Your task to perform on an android device: Open accessibility settings Image 0: 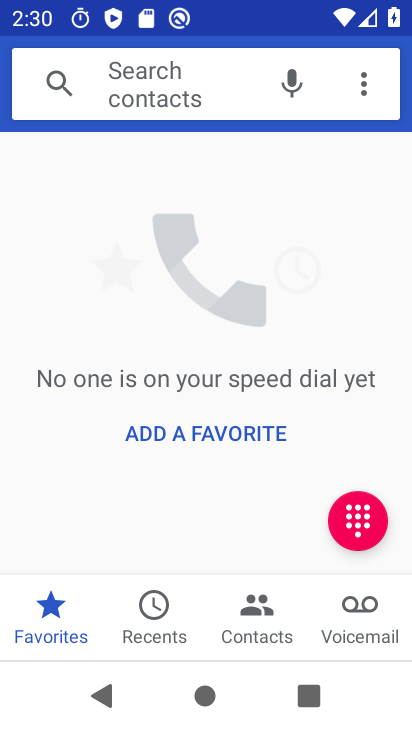
Step 0: press home button
Your task to perform on an android device: Open accessibility settings Image 1: 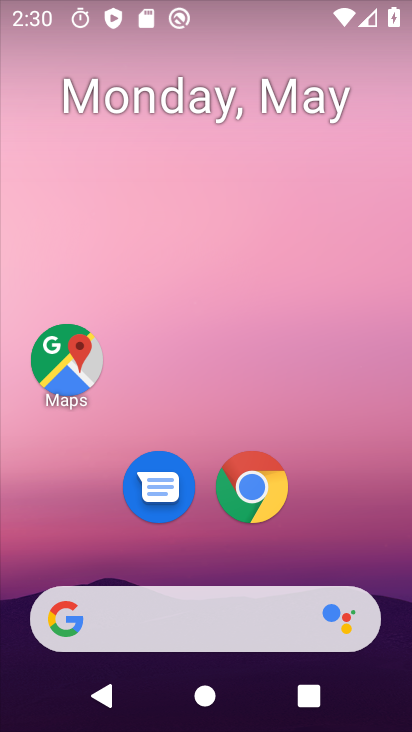
Step 1: drag from (210, 483) to (274, 0)
Your task to perform on an android device: Open accessibility settings Image 2: 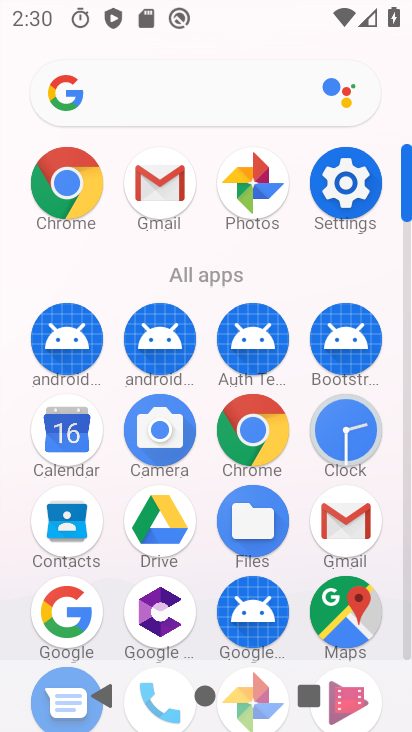
Step 2: click (343, 244)
Your task to perform on an android device: Open accessibility settings Image 3: 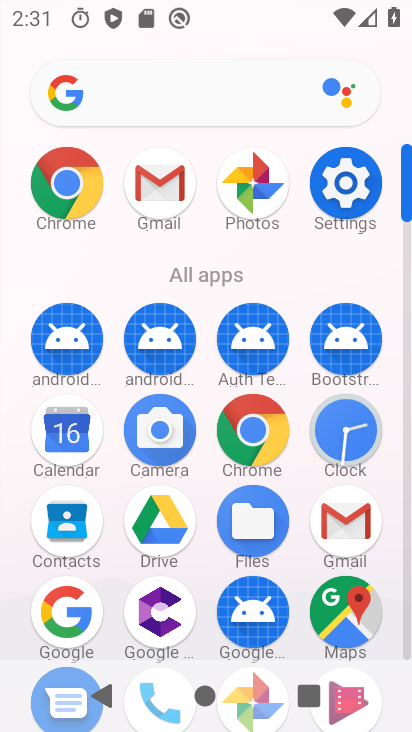
Step 3: click (356, 189)
Your task to perform on an android device: Open accessibility settings Image 4: 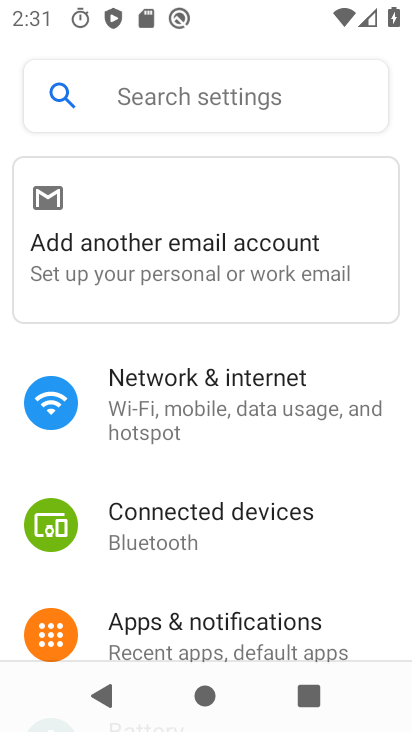
Step 4: drag from (212, 574) to (282, 173)
Your task to perform on an android device: Open accessibility settings Image 5: 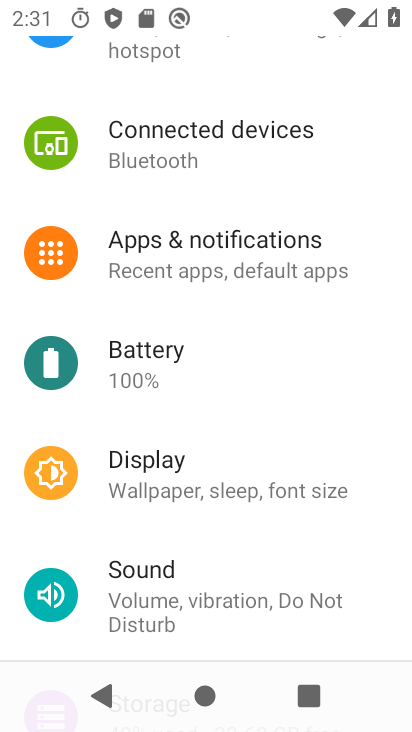
Step 5: drag from (195, 590) to (334, 35)
Your task to perform on an android device: Open accessibility settings Image 6: 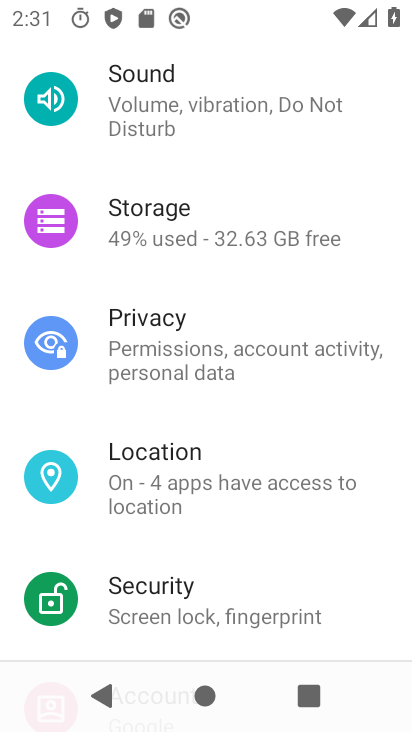
Step 6: drag from (169, 600) to (284, 49)
Your task to perform on an android device: Open accessibility settings Image 7: 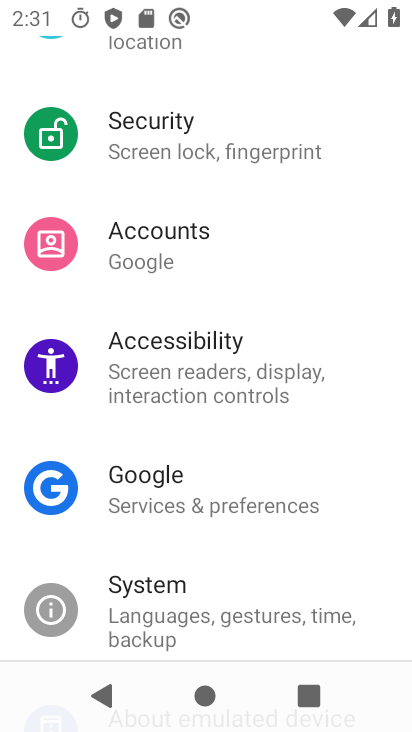
Step 7: drag from (182, 582) to (280, 118)
Your task to perform on an android device: Open accessibility settings Image 8: 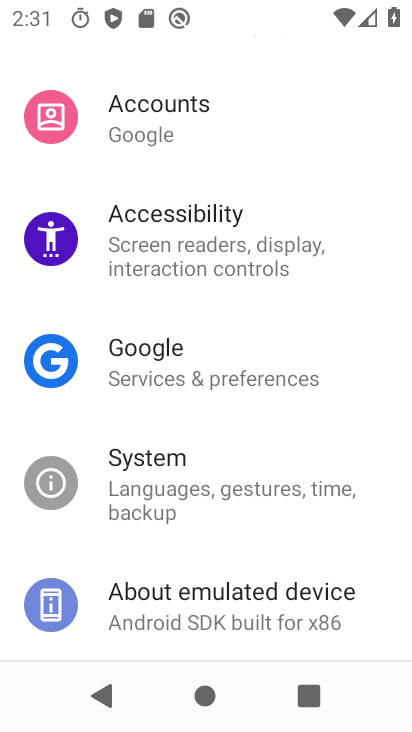
Step 8: click (205, 272)
Your task to perform on an android device: Open accessibility settings Image 9: 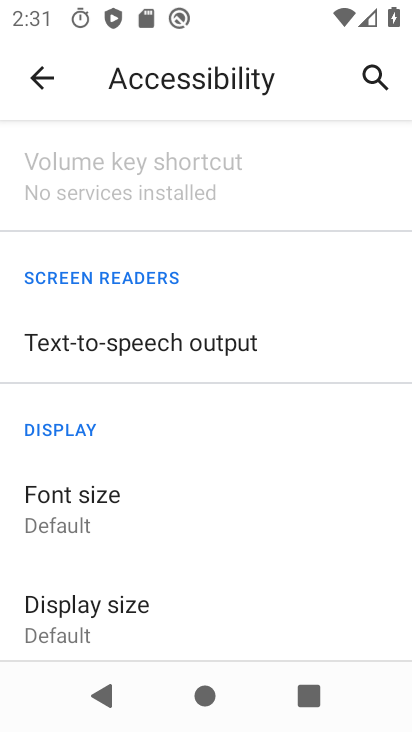
Step 9: task complete